Your task to perform on an android device: open wifi settings Image 0: 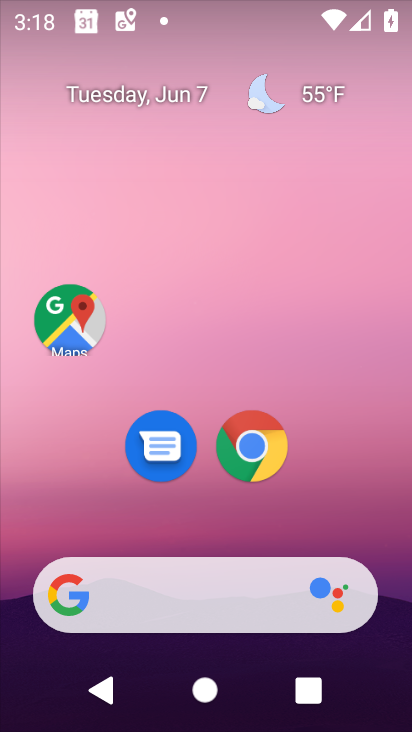
Step 0: drag from (188, 542) to (204, 3)
Your task to perform on an android device: open wifi settings Image 1: 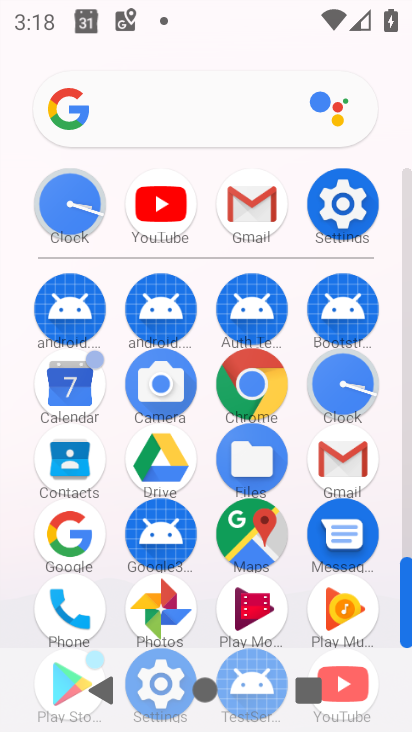
Step 1: click (334, 205)
Your task to perform on an android device: open wifi settings Image 2: 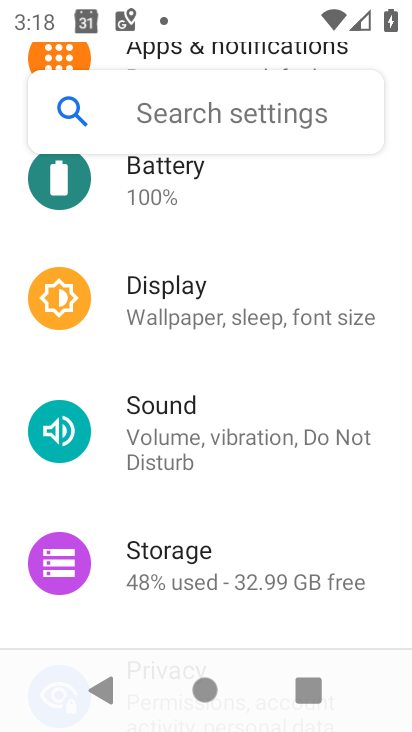
Step 2: drag from (180, 263) to (192, 562)
Your task to perform on an android device: open wifi settings Image 3: 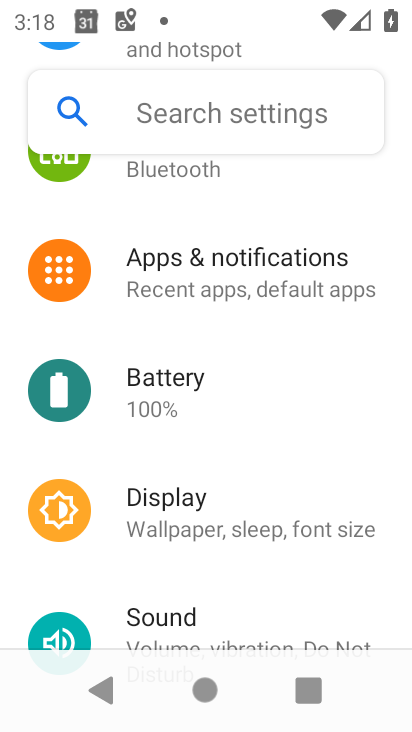
Step 3: drag from (210, 296) to (216, 466)
Your task to perform on an android device: open wifi settings Image 4: 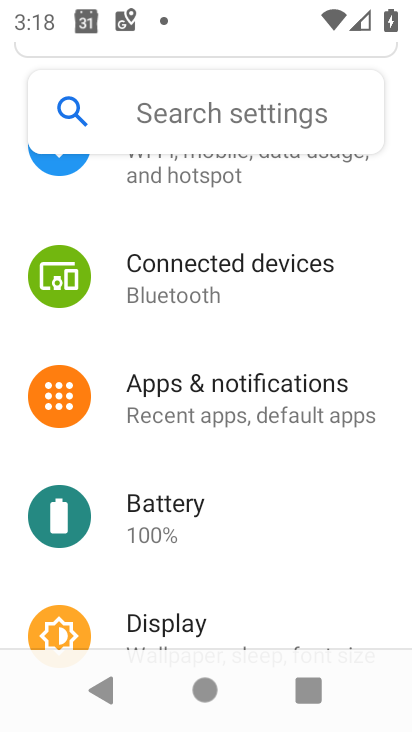
Step 4: drag from (203, 282) to (206, 573)
Your task to perform on an android device: open wifi settings Image 5: 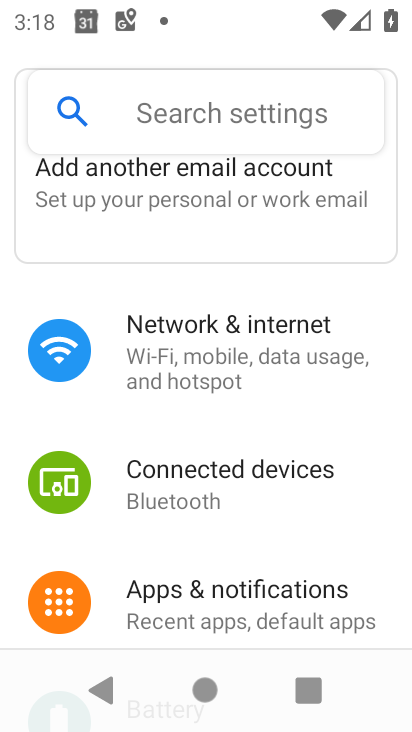
Step 5: click (202, 373)
Your task to perform on an android device: open wifi settings Image 6: 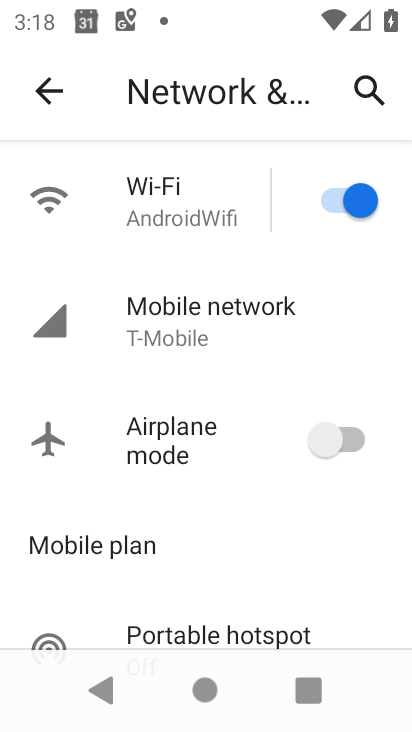
Step 6: click (160, 197)
Your task to perform on an android device: open wifi settings Image 7: 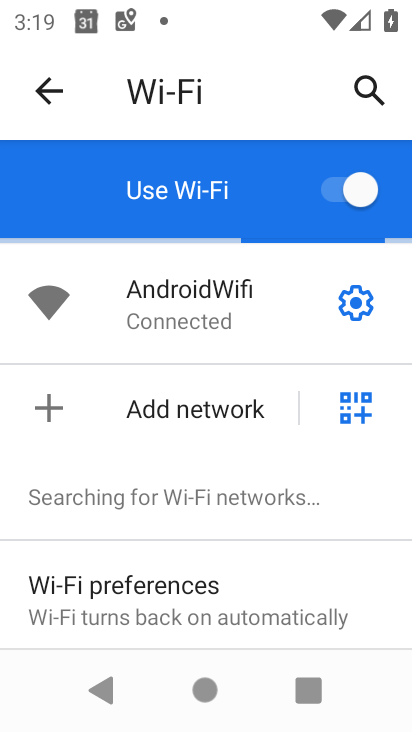
Step 7: task complete